Your task to perform on an android device: Play the last video I watched on Youtube Image 0: 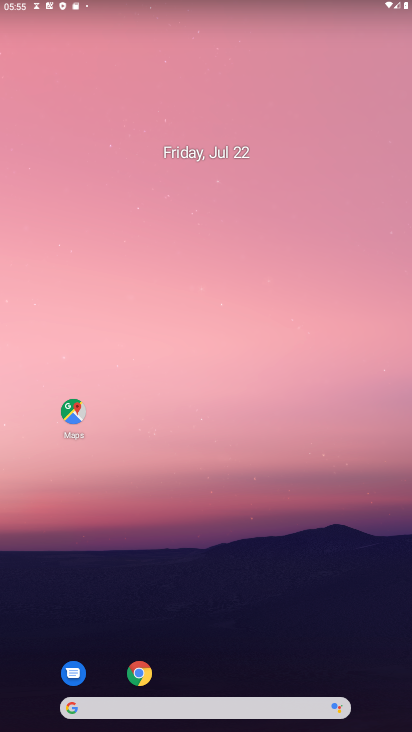
Step 0: drag from (222, 563) to (237, 60)
Your task to perform on an android device: Play the last video I watched on Youtube Image 1: 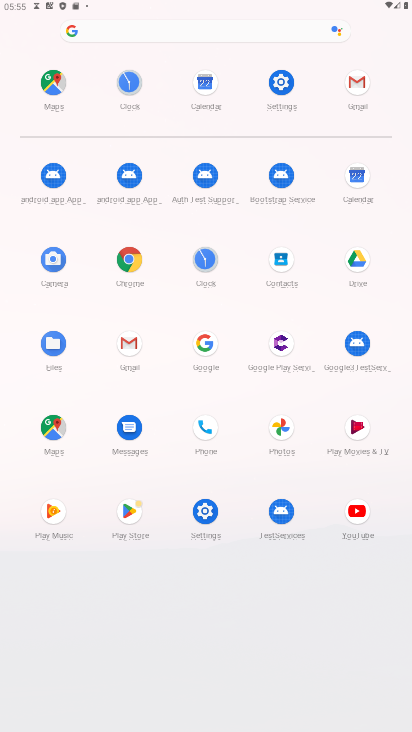
Step 1: click (351, 513)
Your task to perform on an android device: Play the last video I watched on Youtube Image 2: 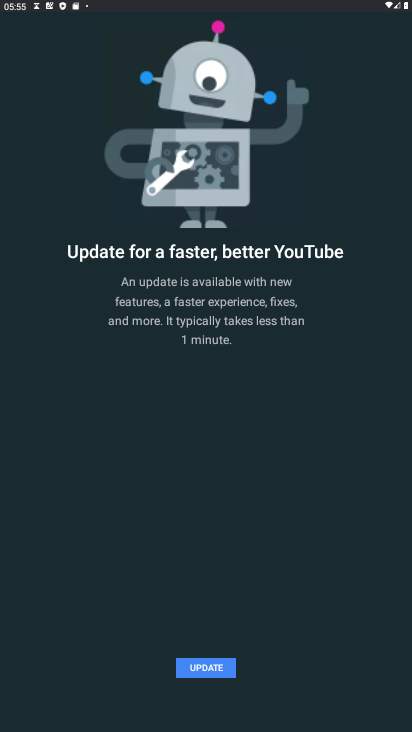
Step 2: click (196, 675)
Your task to perform on an android device: Play the last video I watched on Youtube Image 3: 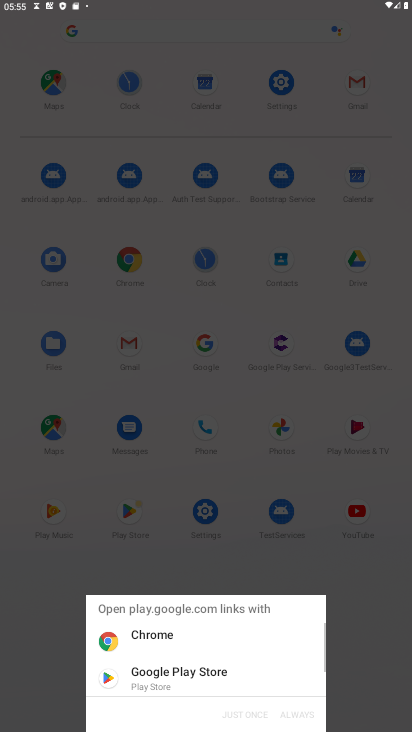
Step 3: click (133, 681)
Your task to perform on an android device: Play the last video I watched on Youtube Image 4: 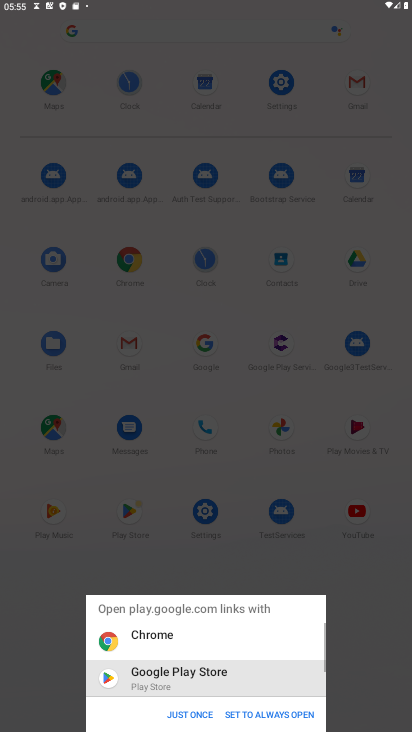
Step 4: click (179, 715)
Your task to perform on an android device: Play the last video I watched on Youtube Image 5: 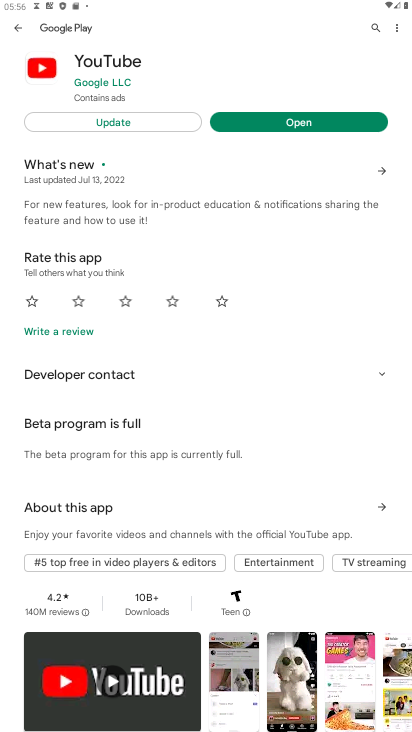
Step 5: click (145, 118)
Your task to perform on an android device: Play the last video I watched on Youtube Image 6: 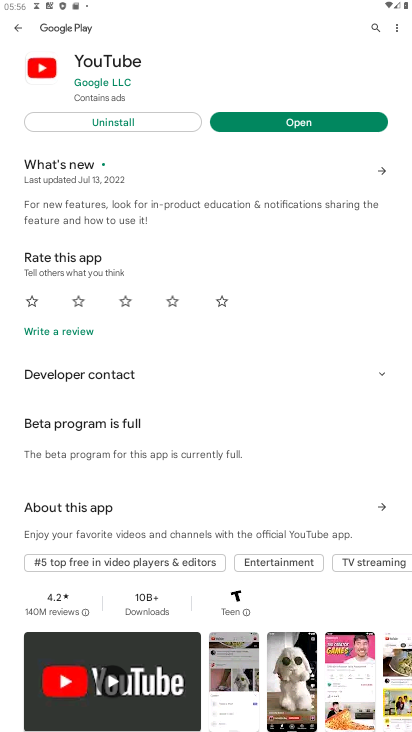
Step 6: click (259, 119)
Your task to perform on an android device: Play the last video I watched on Youtube Image 7: 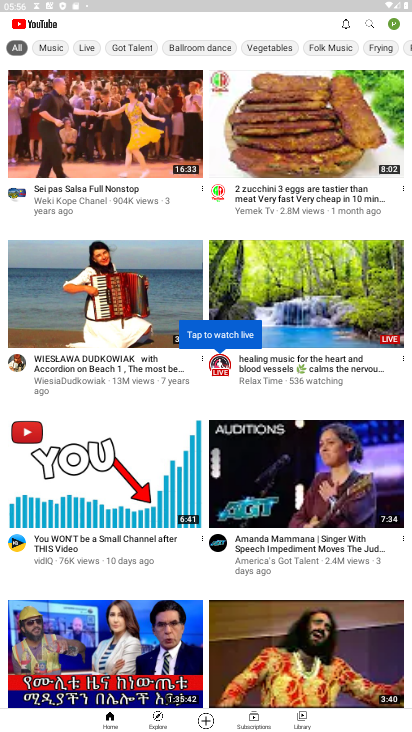
Step 7: click (299, 713)
Your task to perform on an android device: Play the last video I watched on Youtube Image 8: 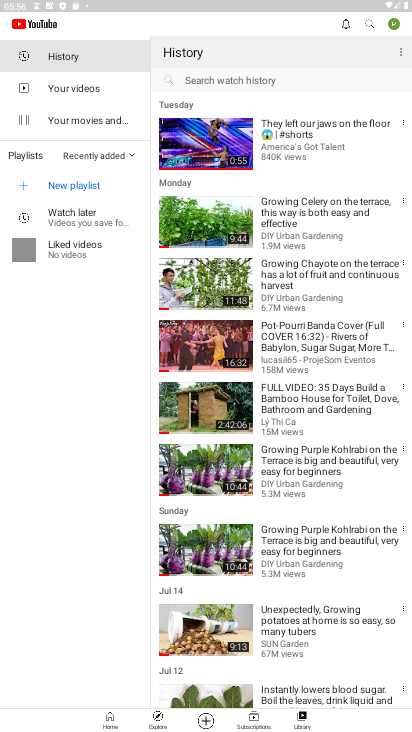
Step 8: click (194, 141)
Your task to perform on an android device: Play the last video I watched on Youtube Image 9: 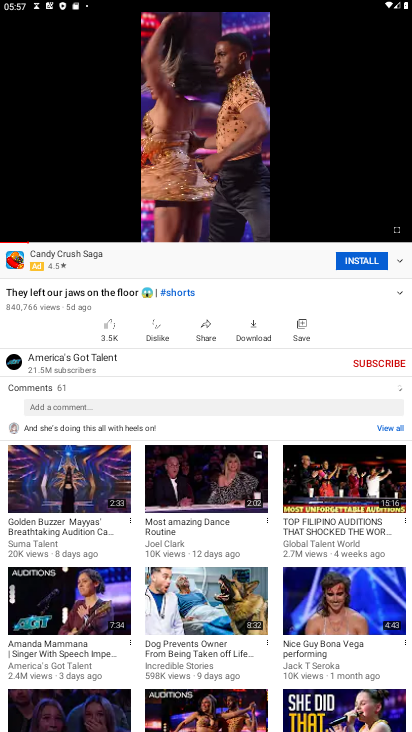
Step 9: task complete